Your task to perform on an android device: toggle show notifications on the lock screen Image 0: 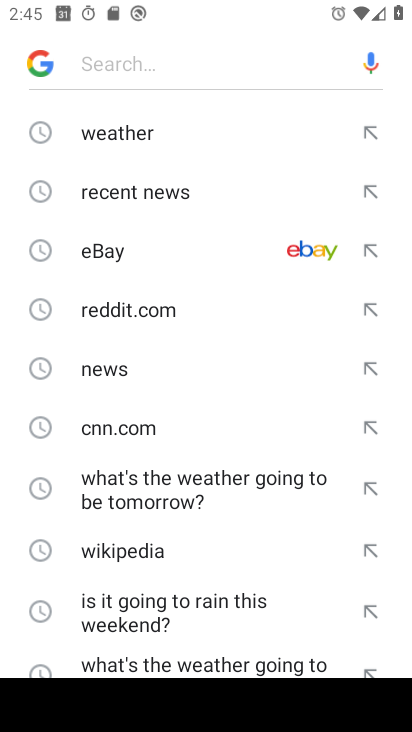
Step 0: press home button
Your task to perform on an android device: toggle show notifications on the lock screen Image 1: 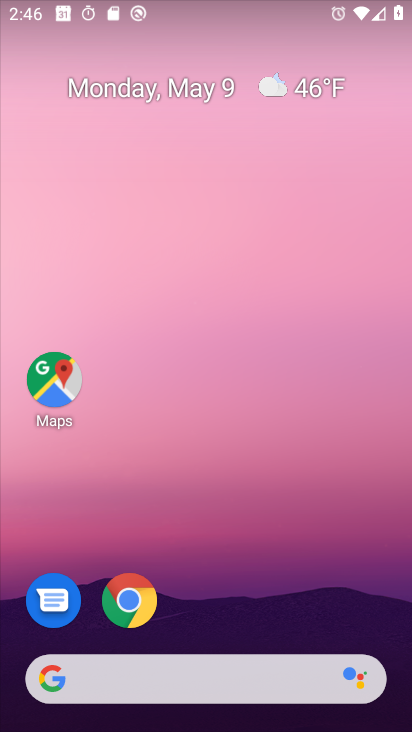
Step 1: drag from (182, 669) to (250, 323)
Your task to perform on an android device: toggle show notifications on the lock screen Image 2: 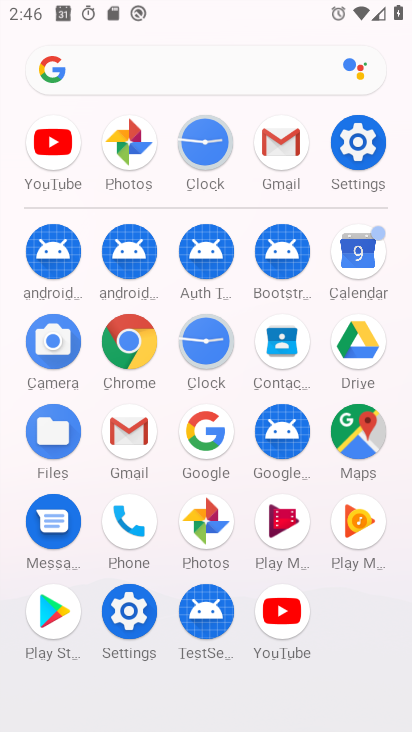
Step 2: click (367, 168)
Your task to perform on an android device: toggle show notifications on the lock screen Image 3: 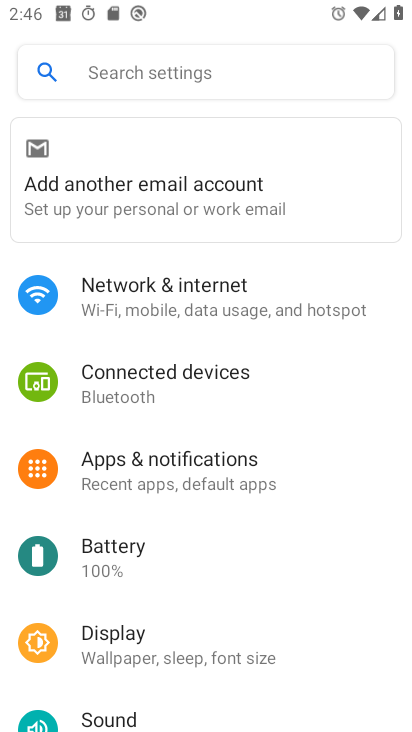
Step 3: click (157, 492)
Your task to perform on an android device: toggle show notifications on the lock screen Image 4: 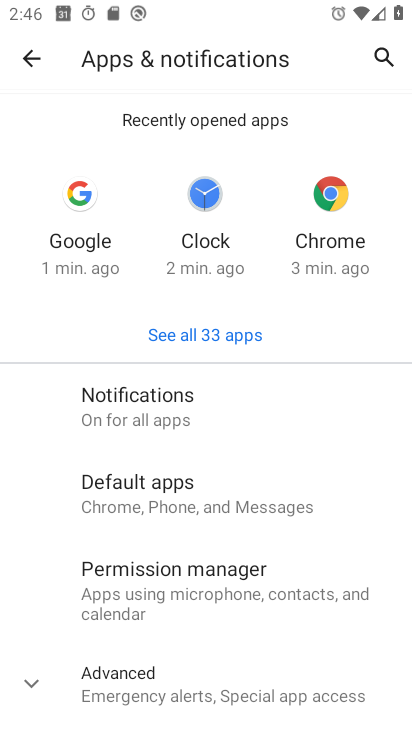
Step 4: click (154, 403)
Your task to perform on an android device: toggle show notifications on the lock screen Image 5: 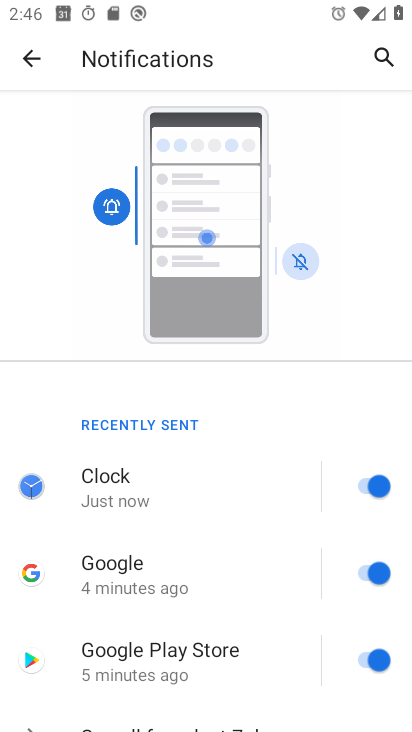
Step 5: drag from (135, 598) to (182, 170)
Your task to perform on an android device: toggle show notifications on the lock screen Image 6: 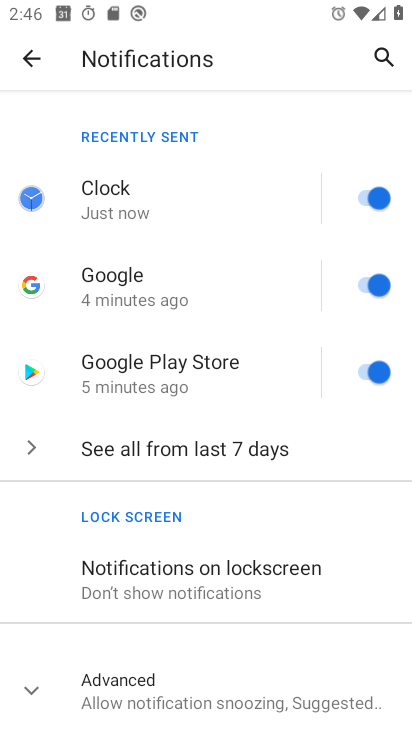
Step 6: click (172, 578)
Your task to perform on an android device: toggle show notifications on the lock screen Image 7: 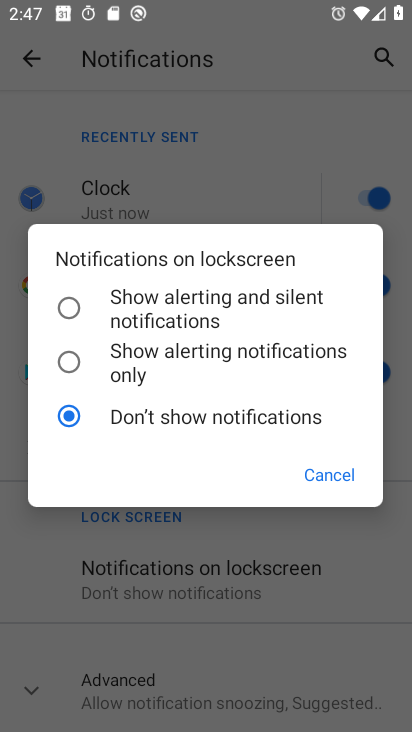
Step 7: click (158, 289)
Your task to perform on an android device: toggle show notifications on the lock screen Image 8: 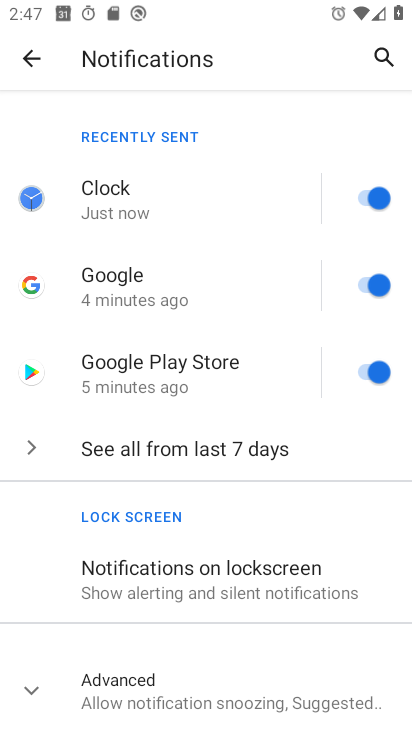
Step 8: task complete